Your task to perform on an android device: Open privacy settings Image 0: 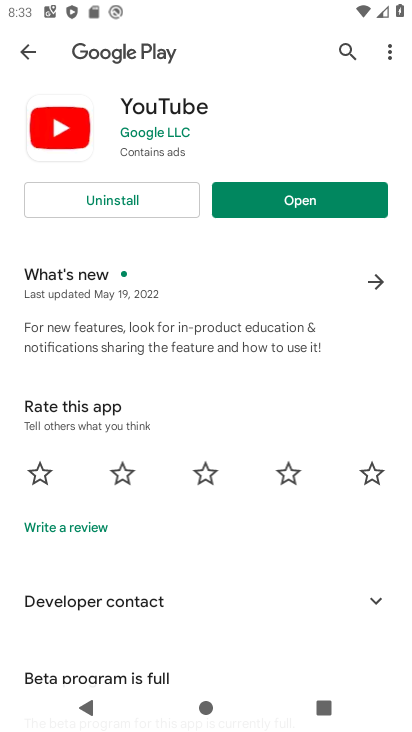
Step 0: press home button
Your task to perform on an android device: Open privacy settings Image 1: 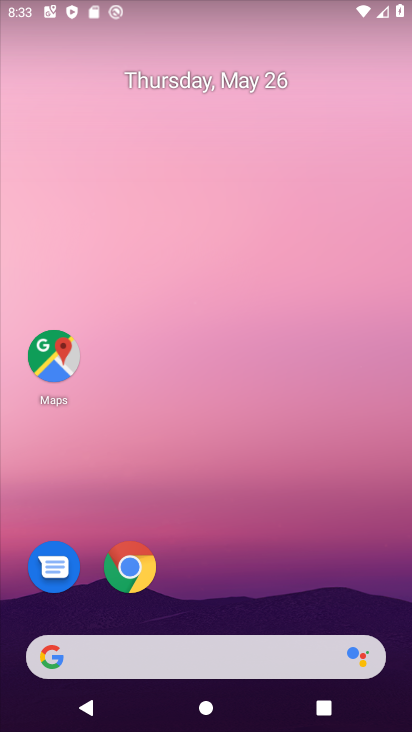
Step 1: drag from (163, 653) to (382, 10)
Your task to perform on an android device: Open privacy settings Image 2: 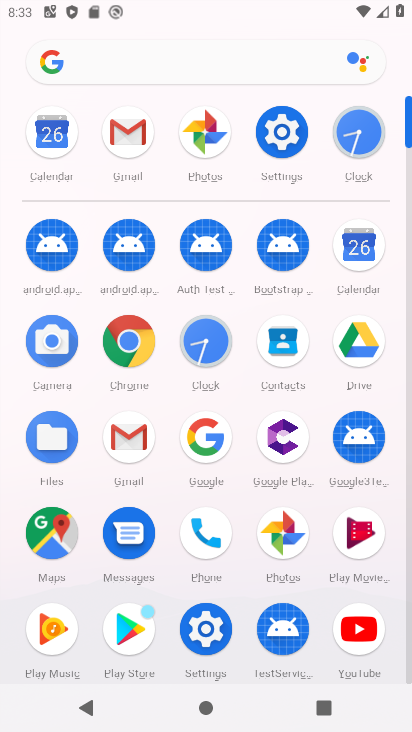
Step 2: click (279, 132)
Your task to perform on an android device: Open privacy settings Image 3: 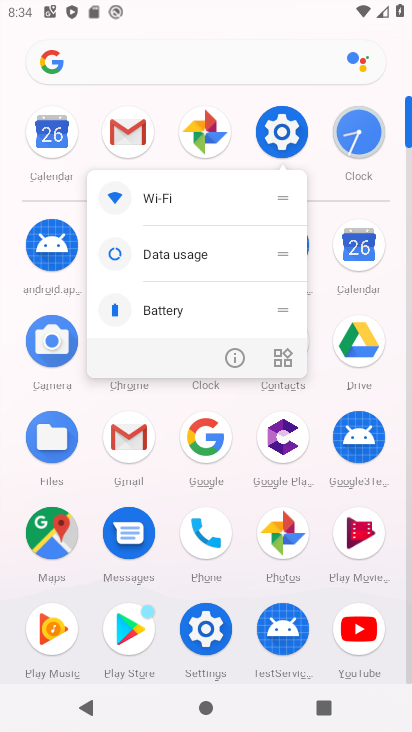
Step 3: click (284, 134)
Your task to perform on an android device: Open privacy settings Image 4: 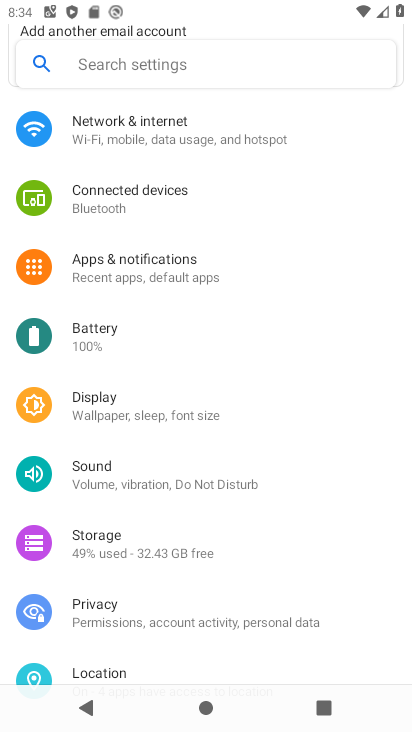
Step 4: click (97, 605)
Your task to perform on an android device: Open privacy settings Image 5: 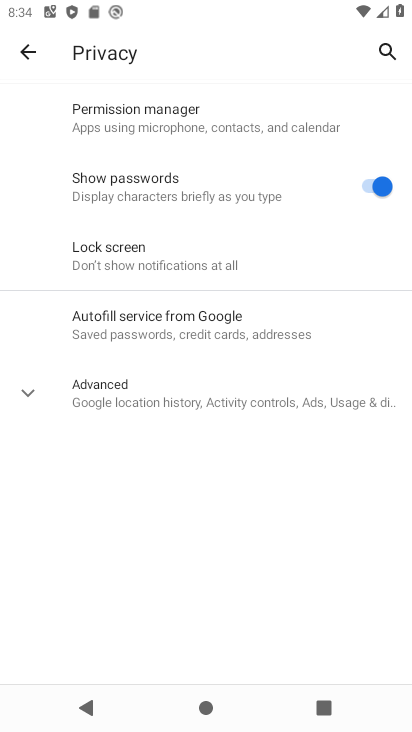
Step 5: task complete